Your task to perform on an android device: turn smart compose on in the gmail app Image 0: 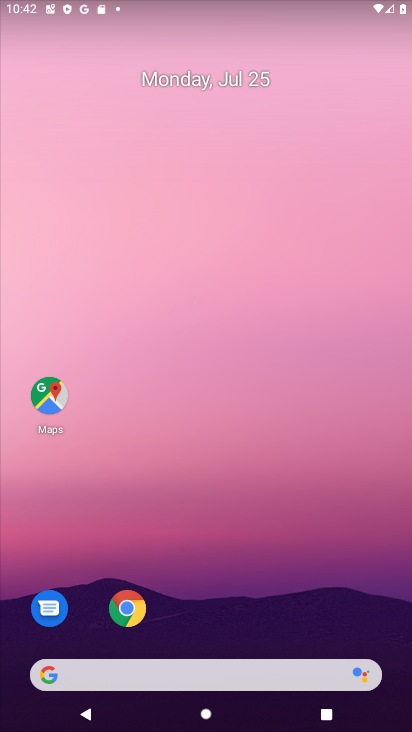
Step 0: drag from (244, 628) to (196, 2)
Your task to perform on an android device: turn smart compose on in the gmail app Image 1: 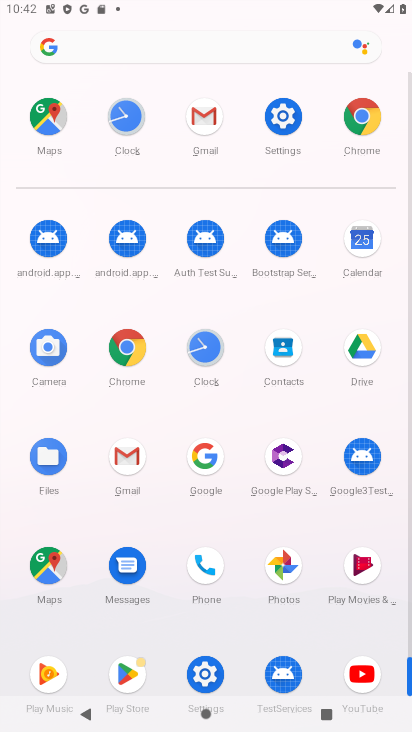
Step 1: click (131, 464)
Your task to perform on an android device: turn smart compose on in the gmail app Image 2: 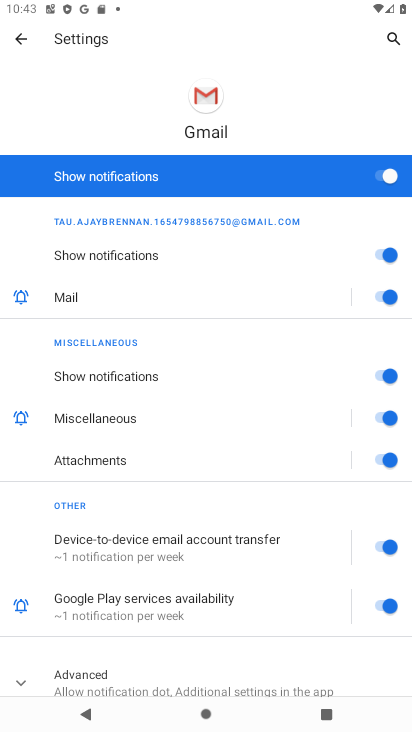
Step 2: click (18, 41)
Your task to perform on an android device: turn smart compose on in the gmail app Image 3: 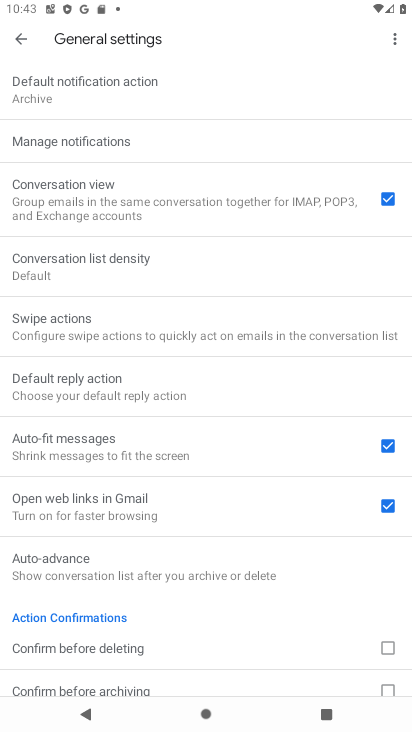
Step 3: click (24, 45)
Your task to perform on an android device: turn smart compose on in the gmail app Image 4: 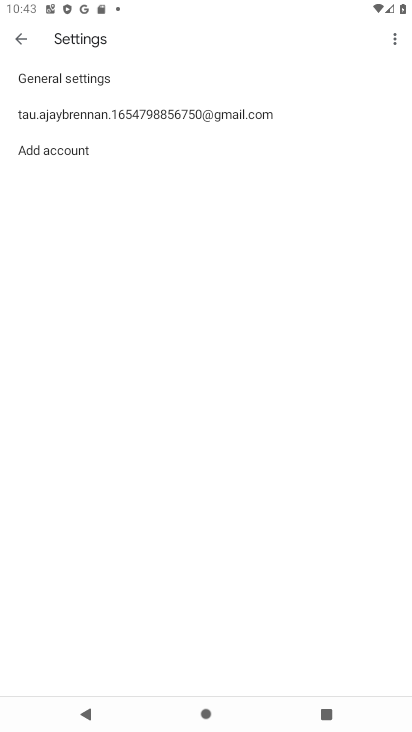
Step 4: click (41, 127)
Your task to perform on an android device: turn smart compose on in the gmail app Image 5: 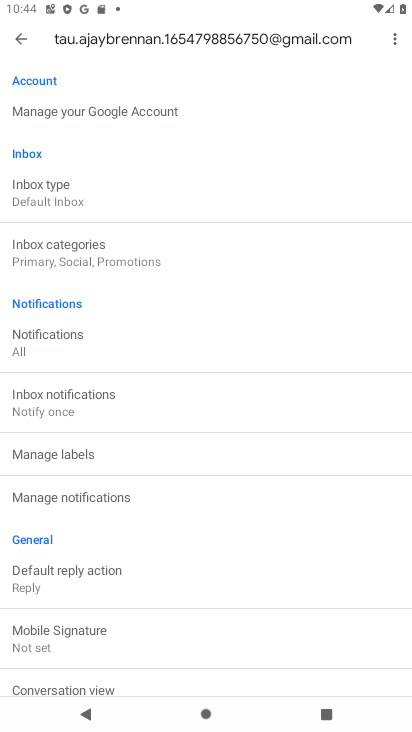
Step 5: task complete